Your task to perform on an android device: star an email in the gmail app Image 0: 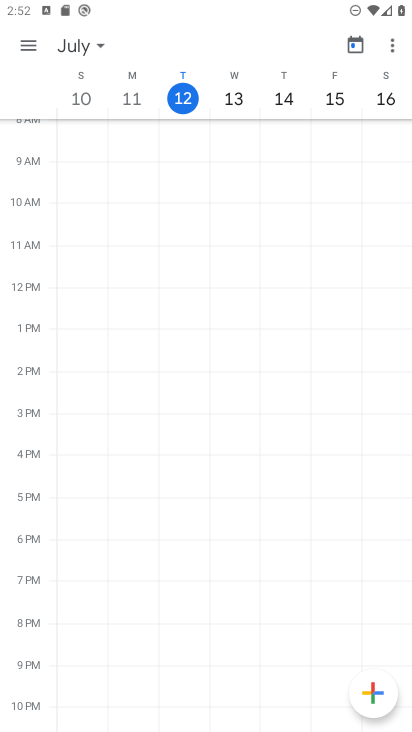
Step 0: press home button
Your task to perform on an android device: star an email in the gmail app Image 1: 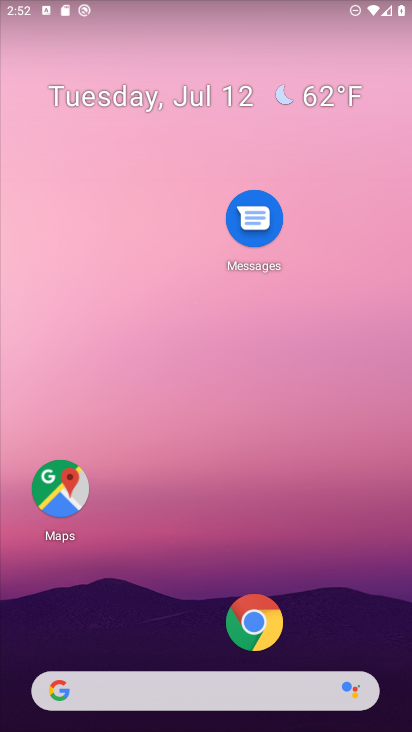
Step 1: drag from (191, 658) to (211, 63)
Your task to perform on an android device: star an email in the gmail app Image 2: 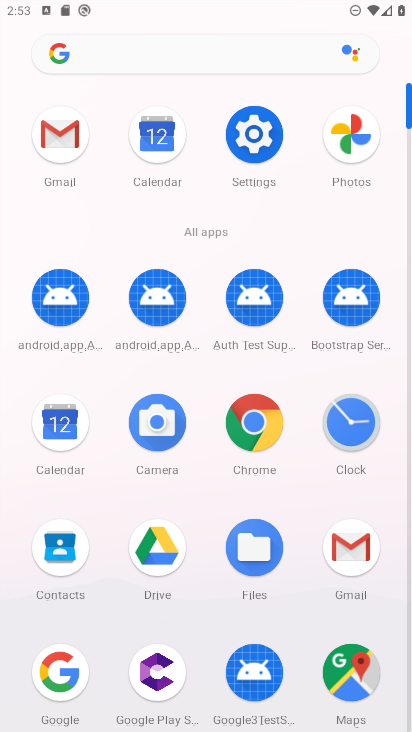
Step 2: click (59, 117)
Your task to perform on an android device: star an email in the gmail app Image 3: 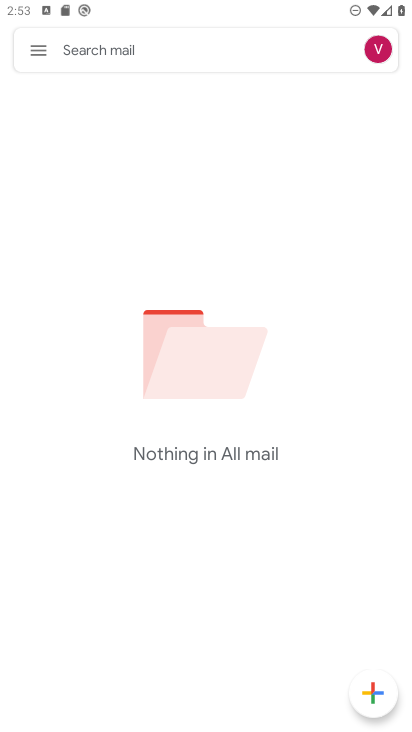
Step 3: task complete